Your task to perform on an android device: turn on translation in the chrome app Image 0: 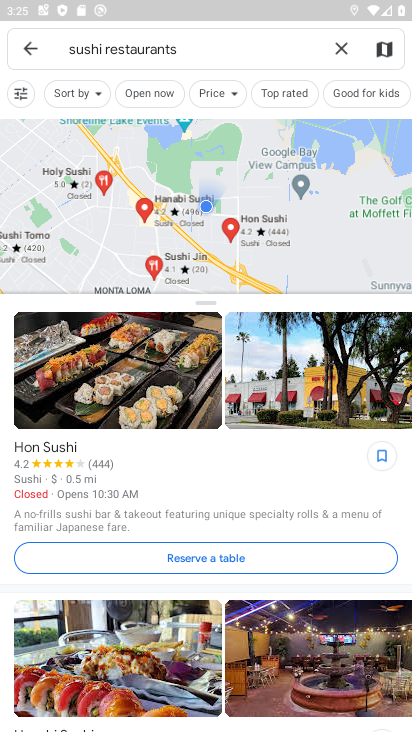
Step 0: press home button
Your task to perform on an android device: turn on translation in the chrome app Image 1: 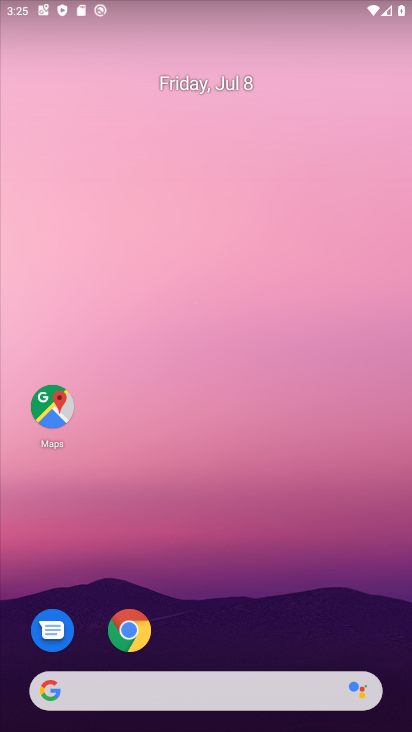
Step 1: click (128, 629)
Your task to perform on an android device: turn on translation in the chrome app Image 2: 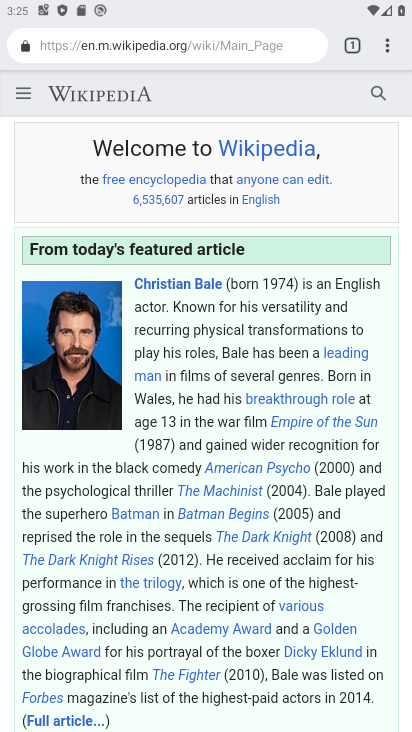
Step 2: click (387, 44)
Your task to perform on an android device: turn on translation in the chrome app Image 3: 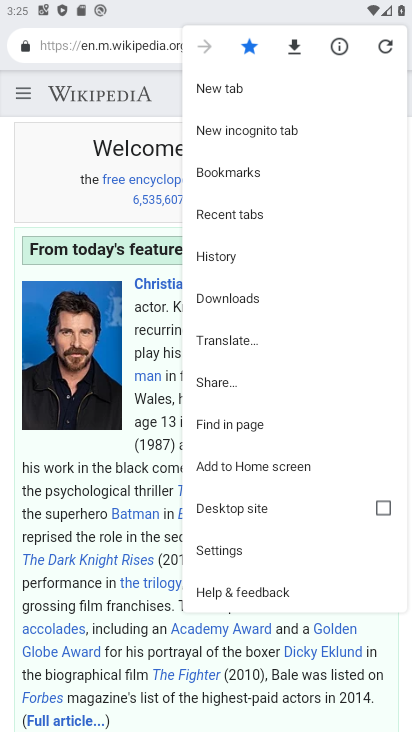
Step 3: click (221, 547)
Your task to perform on an android device: turn on translation in the chrome app Image 4: 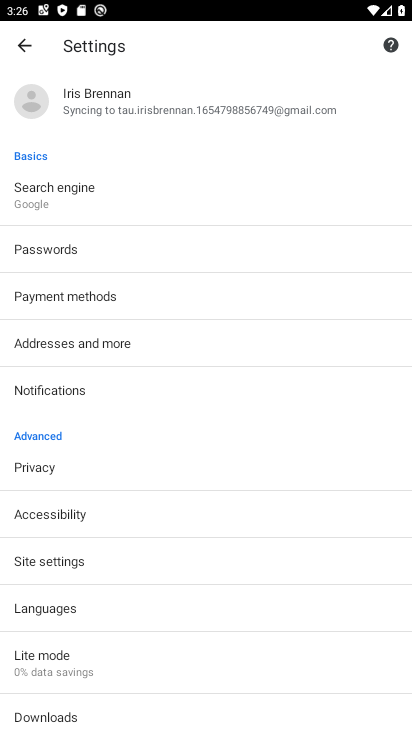
Step 4: click (49, 608)
Your task to perform on an android device: turn on translation in the chrome app Image 5: 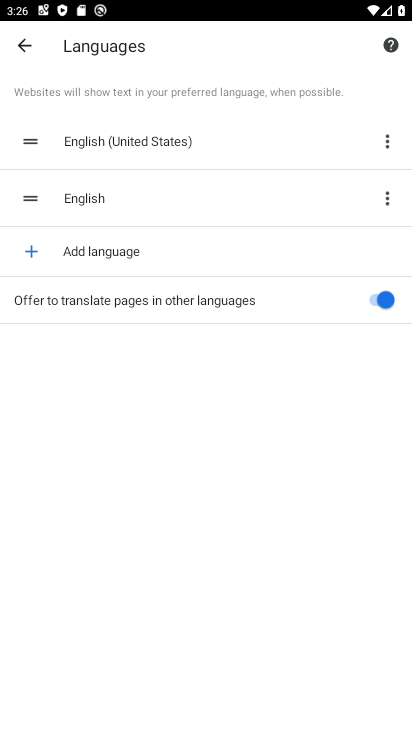
Step 5: task complete